Your task to perform on an android device: toggle improve location accuracy Image 0: 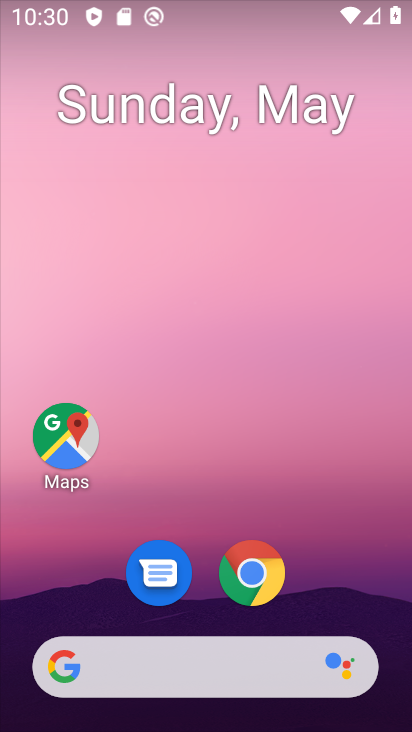
Step 0: drag from (206, 600) to (216, 282)
Your task to perform on an android device: toggle improve location accuracy Image 1: 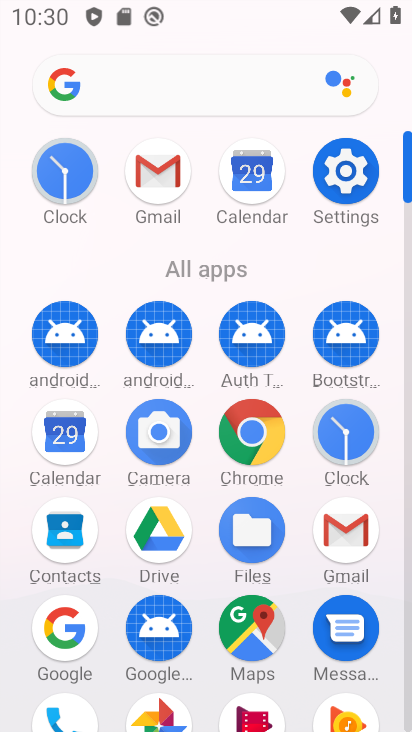
Step 1: click (345, 172)
Your task to perform on an android device: toggle improve location accuracy Image 2: 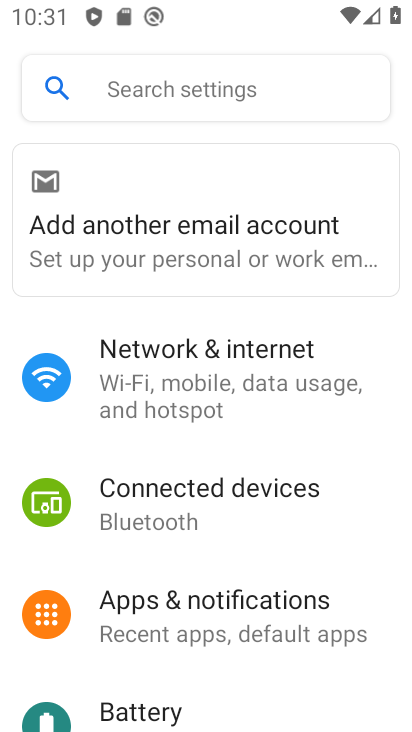
Step 2: drag from (239, 682) to (318, 286)
Your task to perform on an android device: toggle improve location accuracy Image 3: 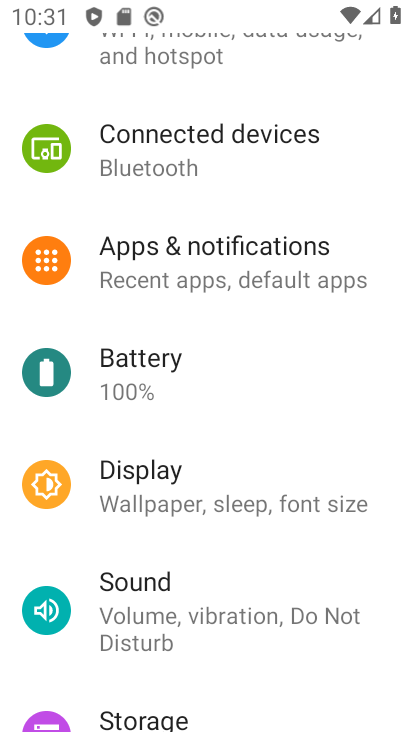
Step 3: drag from (231, 656) to (291, 344)
Your task to perform on an android device: toggle improve location accuracy Image 4: 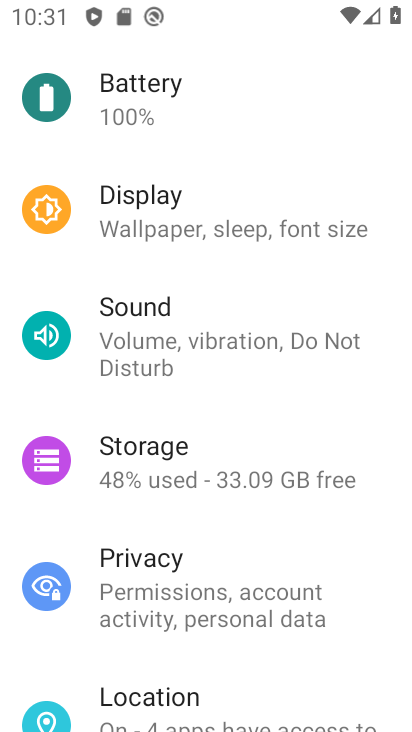
Step 4: click (122, 698)
Your task to perform on an android device: toggle improve location accuracy Image 5: 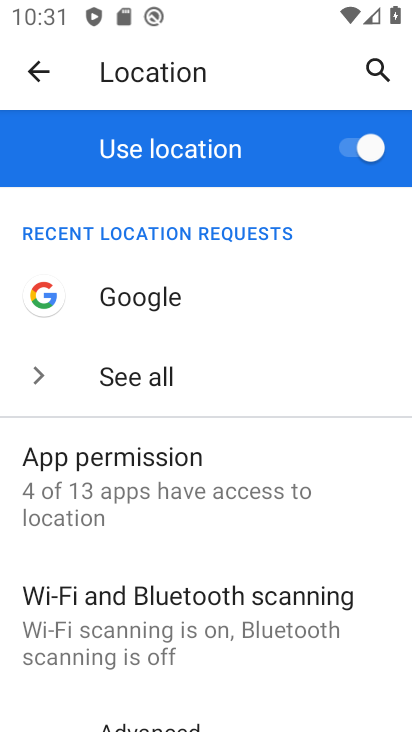
Step 5: drag from (172, 589) to (239, 256)
Your task to perform on an android device: toggle improve location accuracy Image 6: 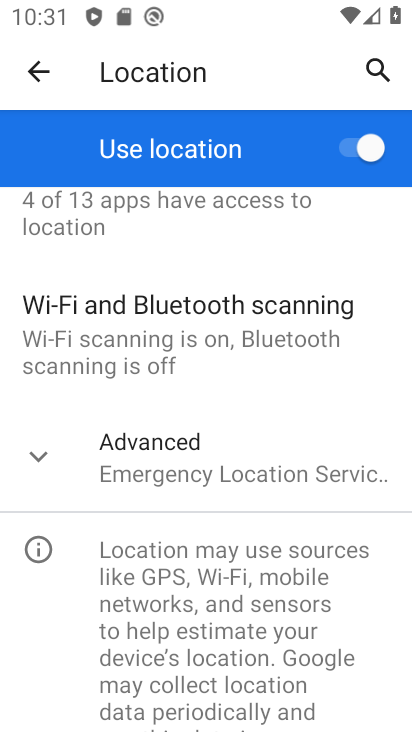
Step 6: click (41, 451)
Your task to perform on an android device: toggle improve location accuracy Image 7: 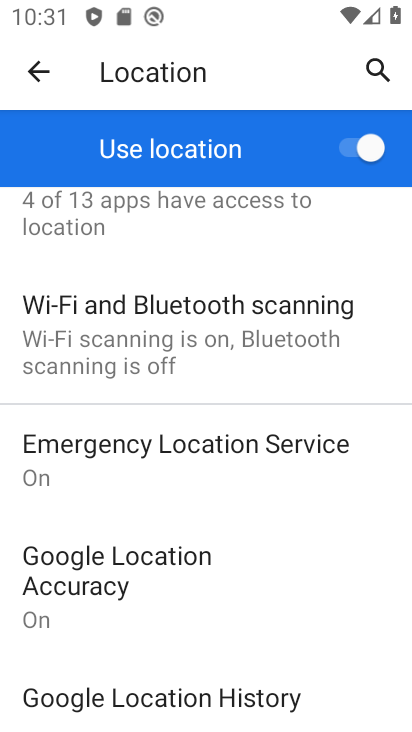
Step 7: drag from (162, 667) to (238, 294)
Your task to perform on an android device: toggle improve location accuracy Image 8: 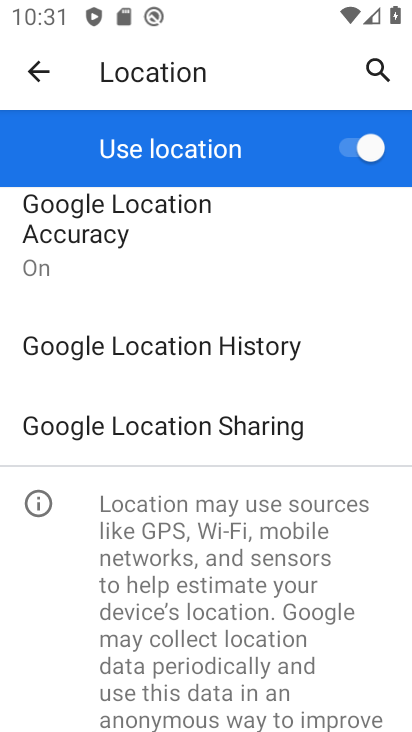
Step 8: drag from (238, 294) to (224, 445)
Your task to perform on an android device: toggle improve location accuracy Image 9: 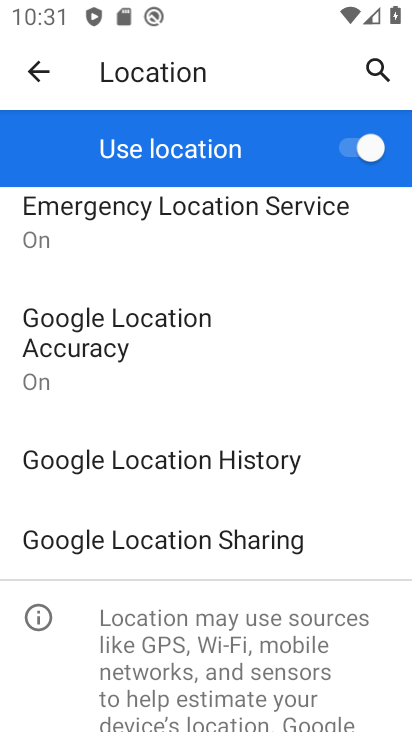
Step 9: click (95, 348)
Your task to perform on an android device: toggle improve location accuracy Image 10: 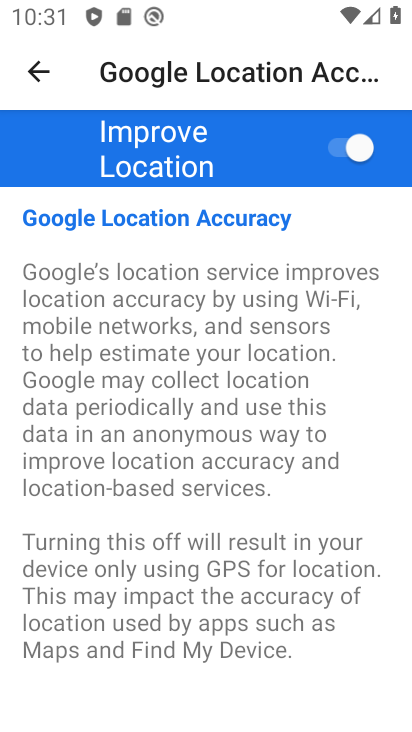
Step 10: click (336, 149)
Your task to perform on an android device: toggle improve location accuracy Image 11: 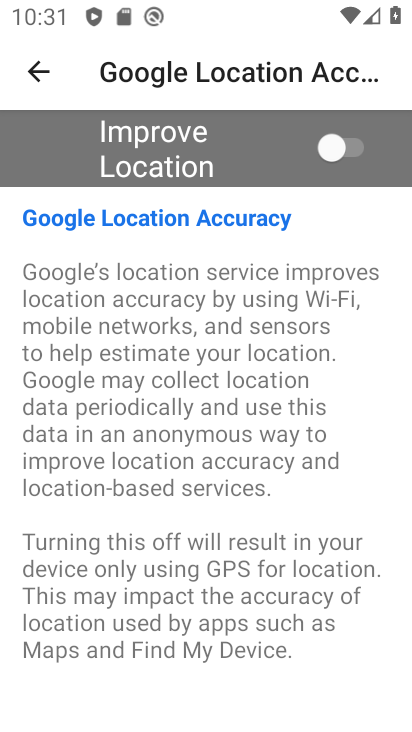
Step 11: task complete